Your task to perform on an android device: Go to Reddit.com Image 0: 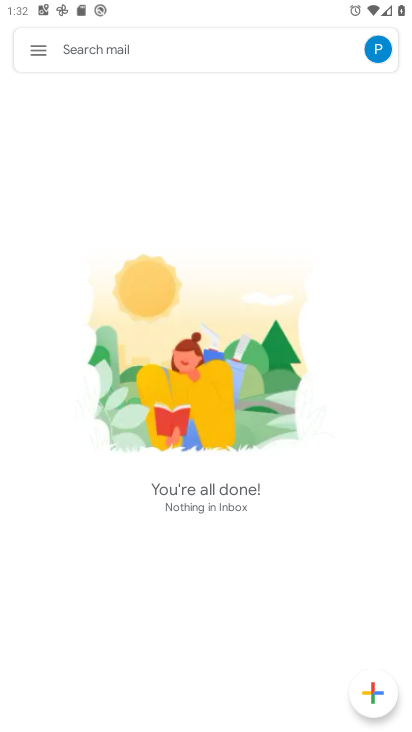
Step 0: press home button
Your task to perform on an android device: Go to Reddit.com Image 1: 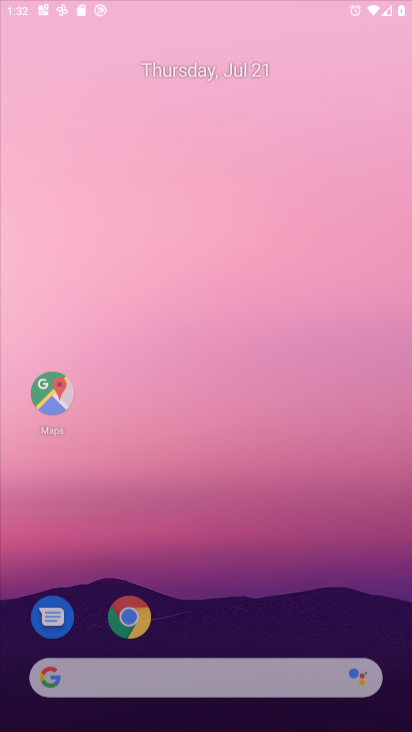
Step 1: drag from (181, 651) to (280, 20)
Your task to perform on an android device: Go to Reddit.com Image 2: 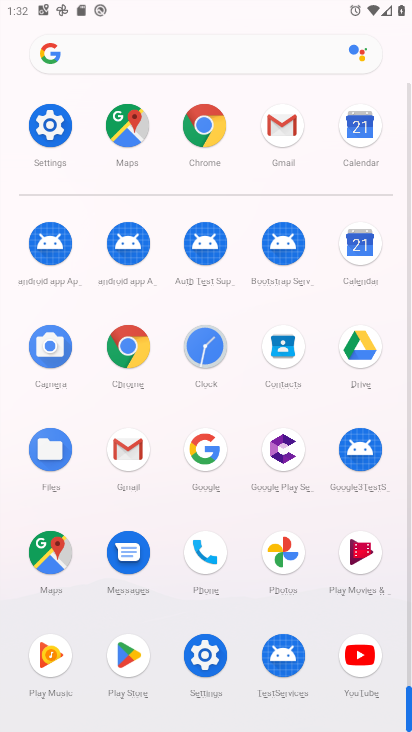
Step 2: click (156, 57)
Your task to perform on an android device: Go to Reddit.com Image 3: 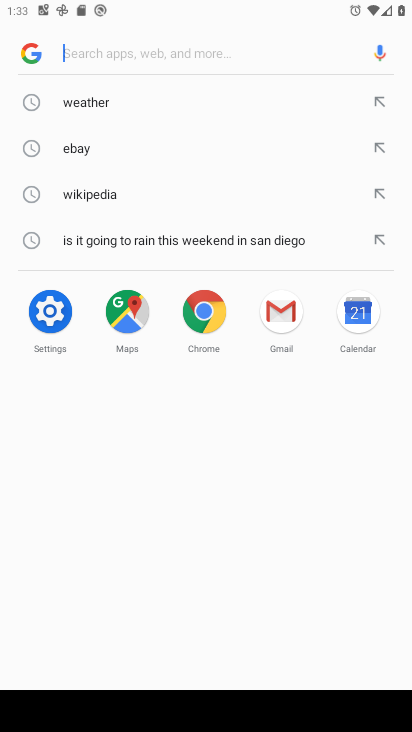
Step 3: type "Reddit.com"
Your task to perform on an android device: Go to Reddit.com Image 4: 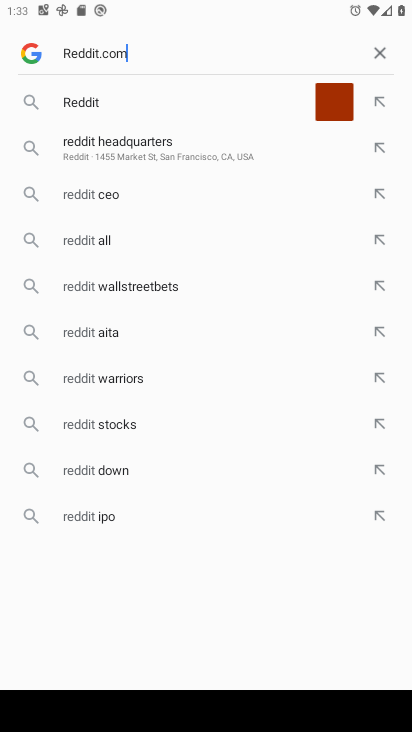
Step 4: type ""
Your task to perform on an android device: Go to Reddit.com Image 5: 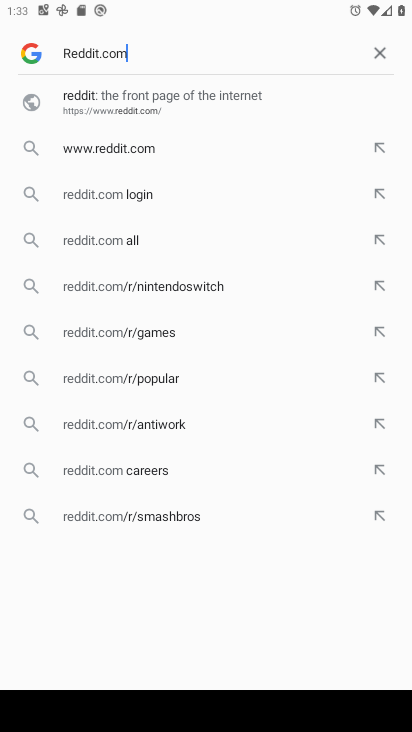
Step 5: click (100, 149)
Your task to perform on an android device: Go to Reddit.com Image 6: 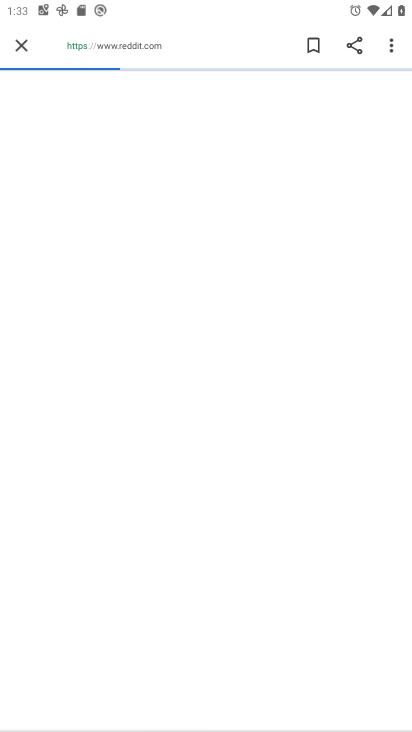
Step 6: task complete